Your task to perform on an android device: turn on the 12-hour format for clock Image 0: 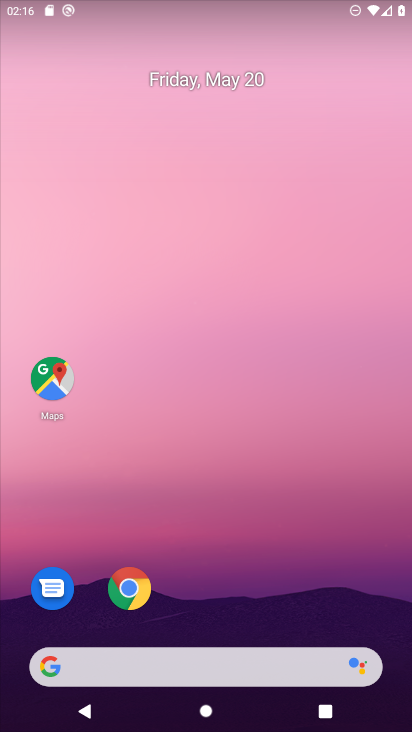
Step 0: drag from (400, 637) to (286, 130)
Your task to perform on an android device: turn on the 12-hour format for clock Image 1: 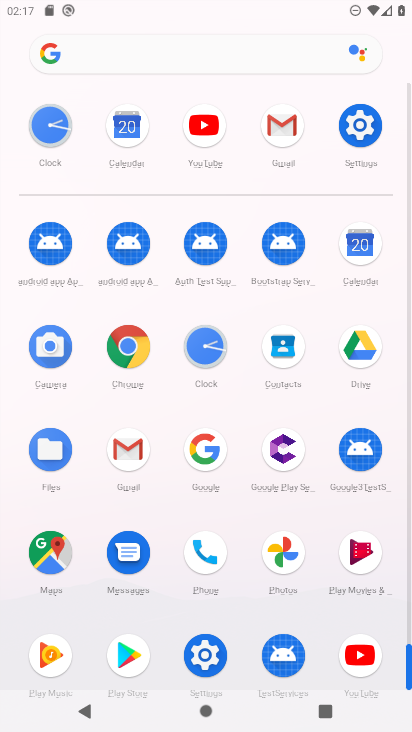
Step 1: click (207, 343)
Your task to perform on an android device: turn on the 12-hour format for clock Image 2: 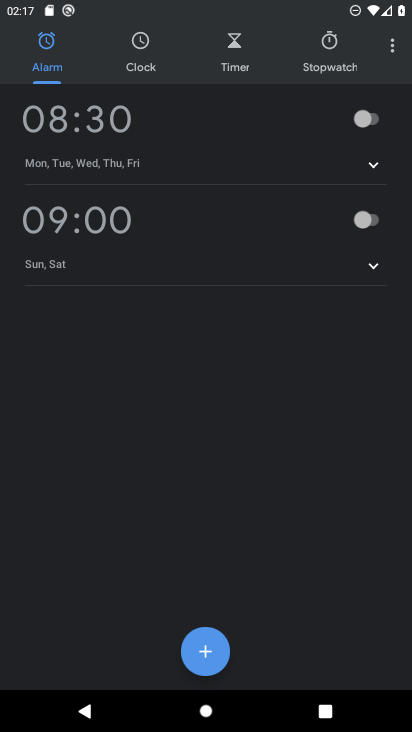
Step 2: click (389, 55)
Your task to perform on an android device: turn on the 12-hour format for clock Image 3: 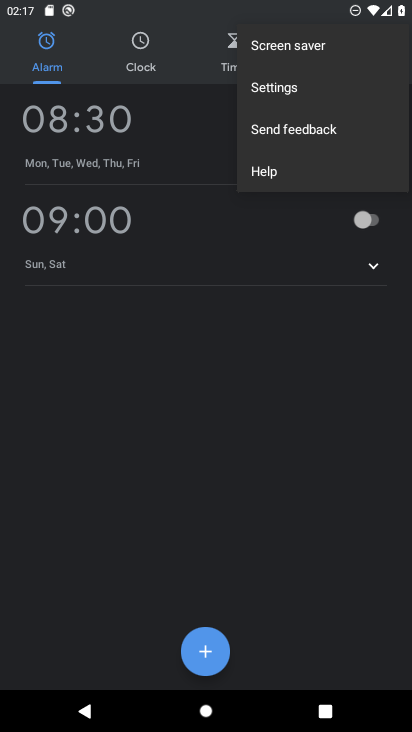
Step 3: click (272, 82)
Your task to perform on an android device: turn on the 12-hour format for clock Image 4: 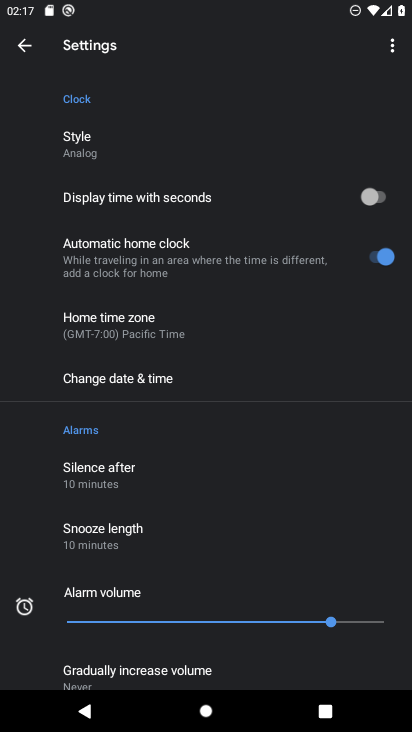
Step 4: click (141, 383)
Your task to perform on an android device: turn on the 12-hour format for clock Image 5: 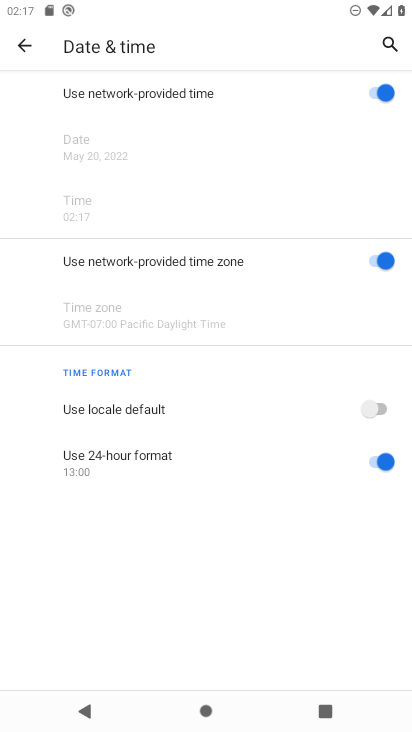
Step 5: click (381, 410)
Your task to perform on an android device: turn on the 12-hour format for clock Image 6: 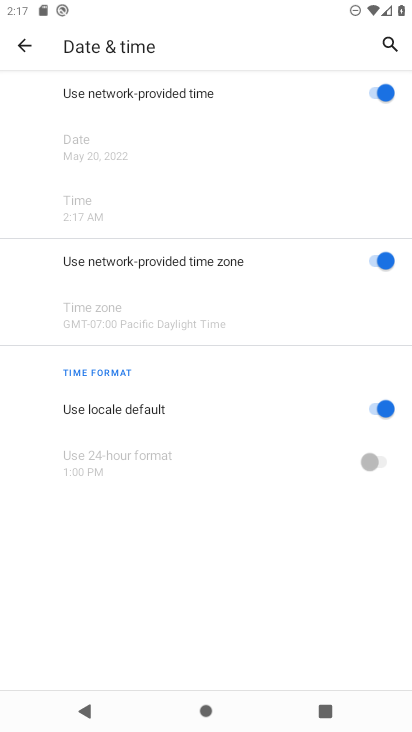
Step 6: task complete